Your task to perform on an android device: remove spam from my inbox in the gmail app Image 0: 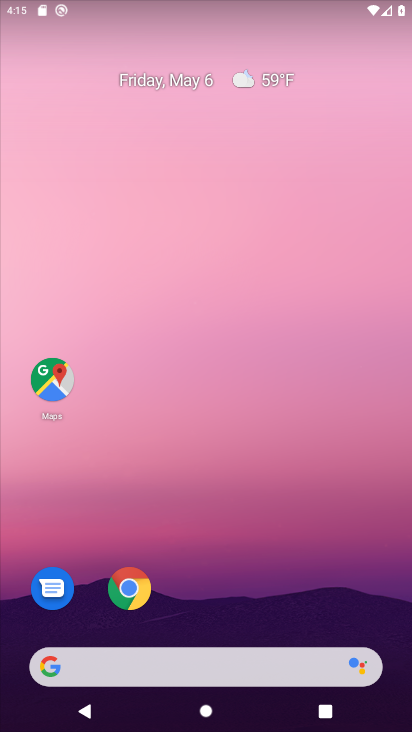
Step 0: drag from (221, 728) to (216, 125)
Your task to perform on an android device: remove spam from my inbox in the gmail app Image 1: 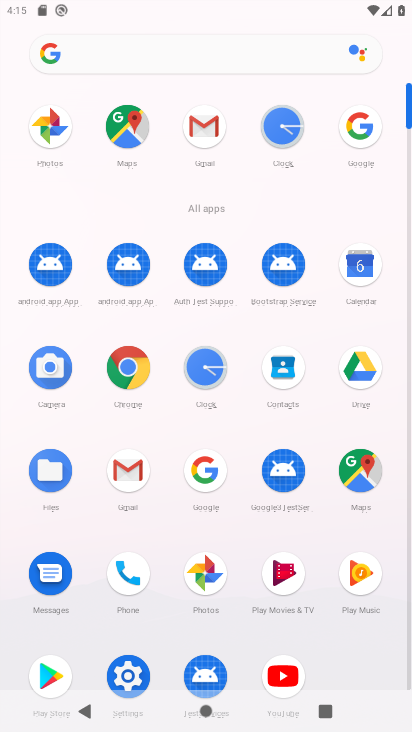
Step 1: click (130, 471)
Your task to perform on an android device: remove spam from my inbox in the gmail app Image 2: 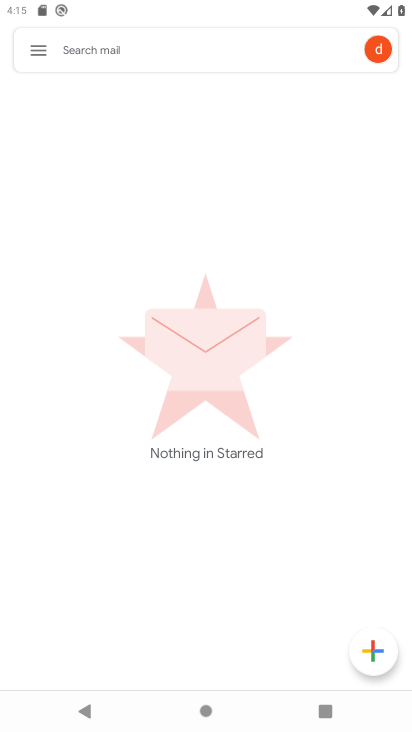
Step 2: click (36, 45)
Your task to perform on an android device: remove spam from my inbox in the gmail app Image 3: 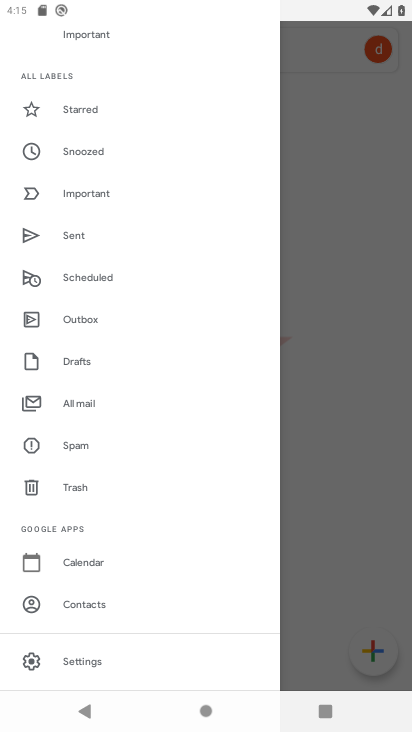
Step 3: drag from (84, 123) to (88, 406)
Your task to perform on an android device: remove spam from my inbox in the gmail app Image 4: 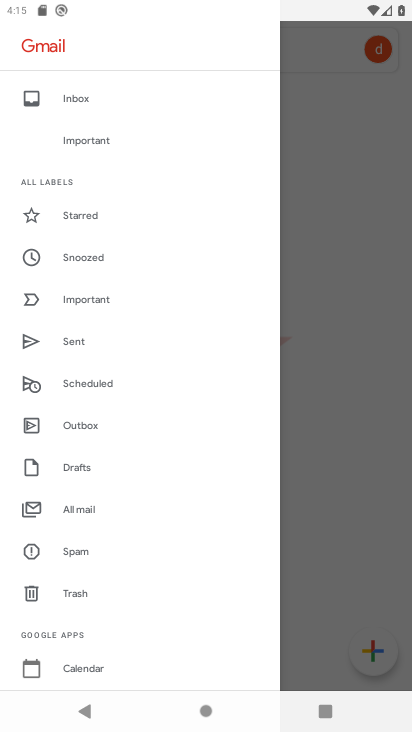
Step 4: click (73, 65)
Your task to perform on an android device: remove spam from my inbox in the gmail app Image 5: 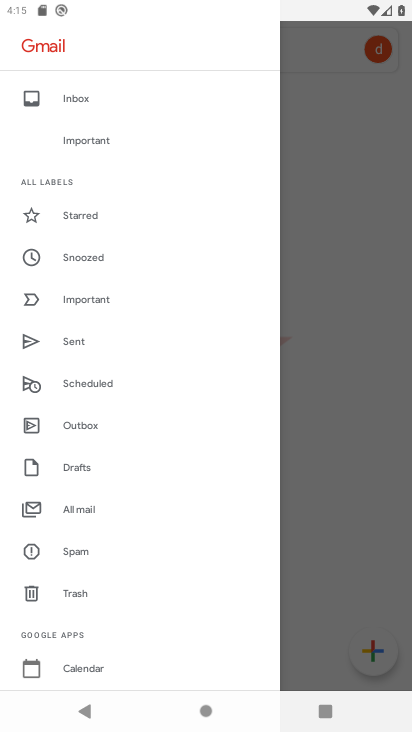
Step 5: click (73, 96)
Your task to perform on an android device: remove spam from my inbox in the gmail app Image 6: 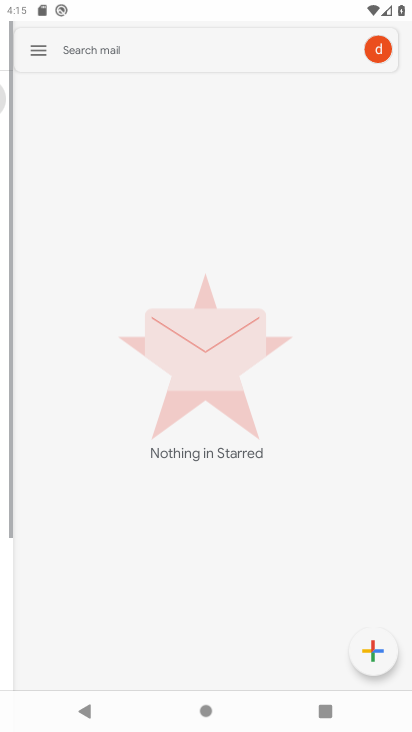
Step 6: click (71, 95)
Your task to perform on an android device: remove spam from my inbox in the gmail app Image 7: 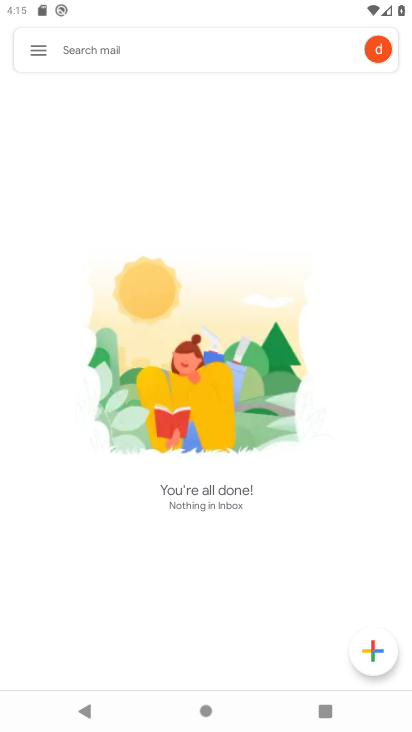
Step 7: click (43, 53)
Your task to perform on an android device: remove spam from my inbox in the gmail app Image 8: 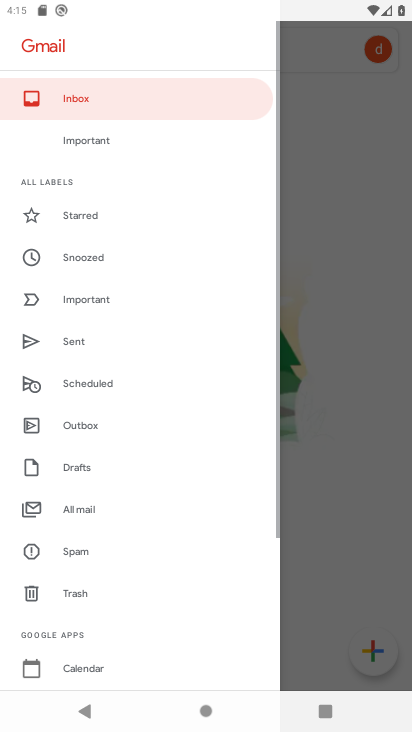
Step 8: click (35, 51)
Your task to perform on an android device: remove spam from my inbox in the gmail app Image 9: 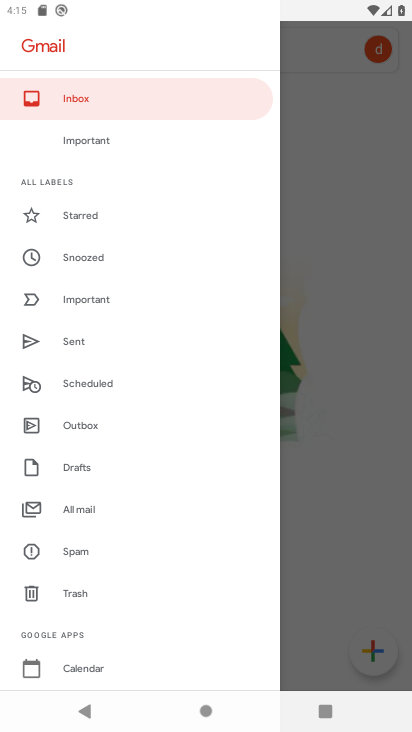
Step 9: click (67, 547)
Your task to perform on an android device: remove spam from my inbox in the gmail app Image 10: 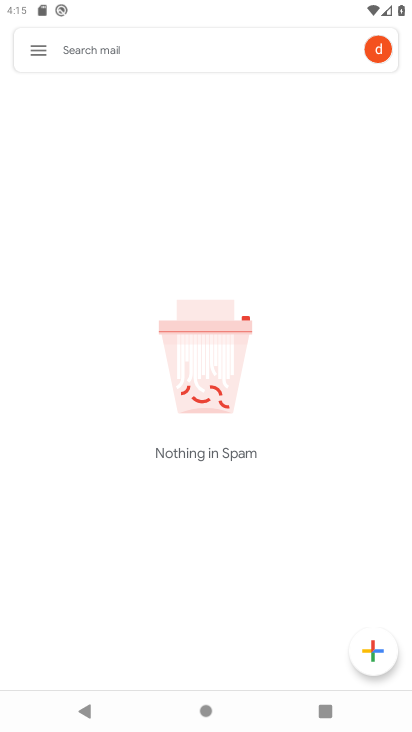
Step 10: click (78, 552)
Your task to perform on an android device: remove spam from my inbox in the gmail app Image 11: 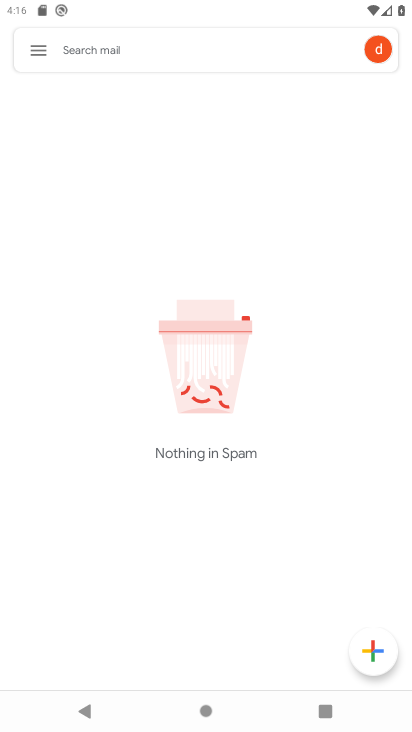
Step 11: task complete